Your task to perform on an android device: Go to settings Image 0: 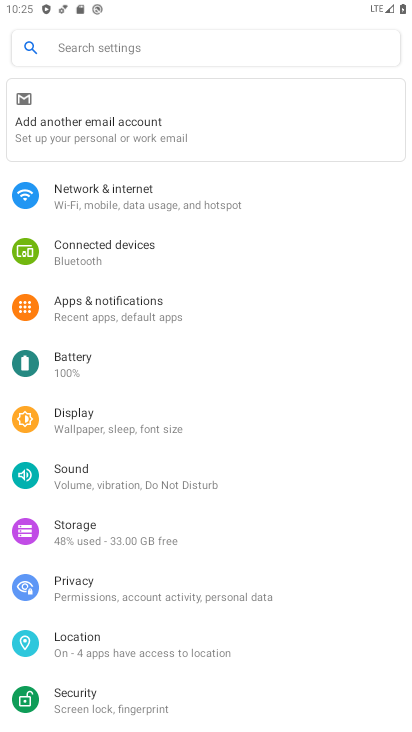
Step 0: press home button
Your task to perform on an android device: Go to settings Image 1: 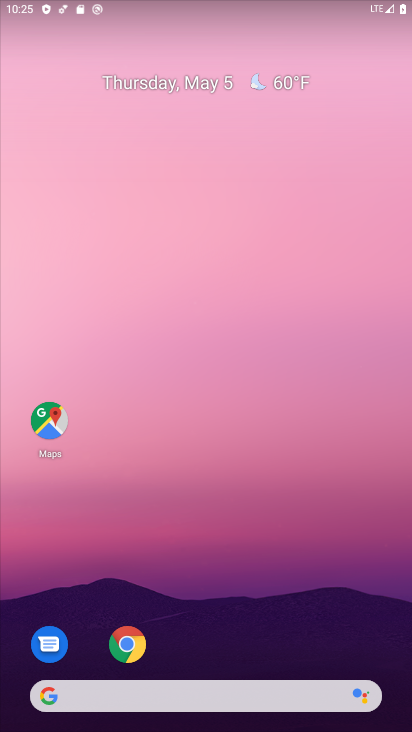
Step 1: drag from (359, 608) to (334, 144)
Your task to perform on an android device: Go to settings Image 2: 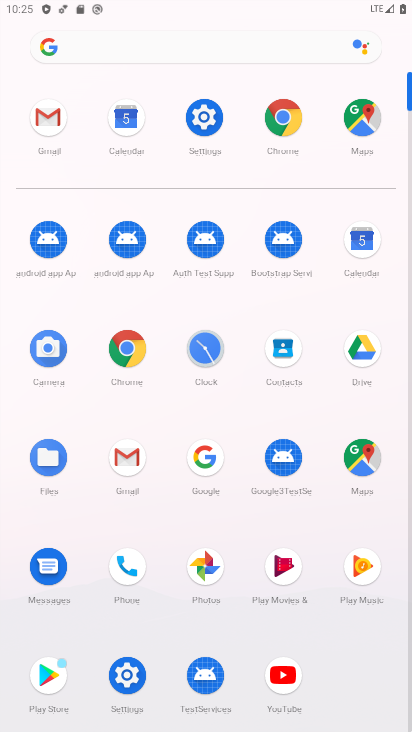
Step 2: click (203, 127)
Your task to perform on an android device: Go to settings Image 3: 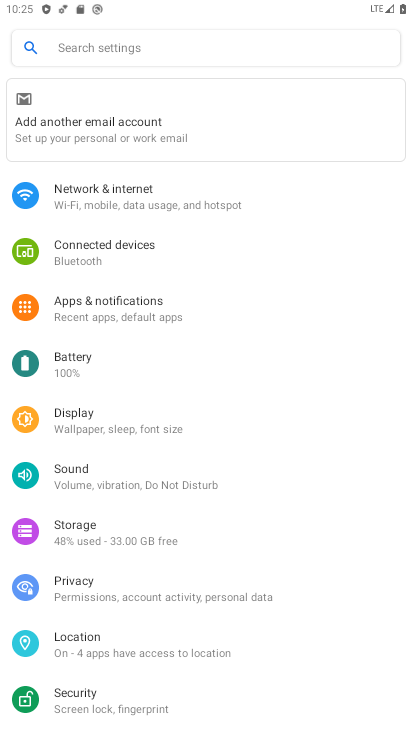
Step 3: task complete